Your task to perform on an android device: set the stopwatch Image 0: 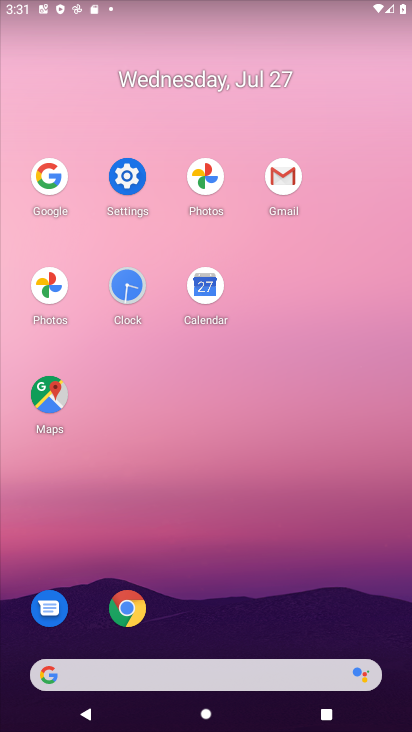
Step 0: click (119, 292)
Your task to perform on an android device: set the stopwatch Image 1: 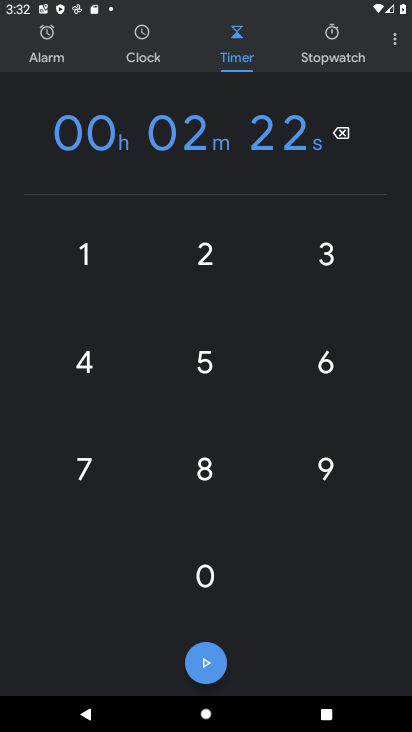
Step 1: click (334, 32)
Your task to perform on an android device: set the stopwatch Image 2: 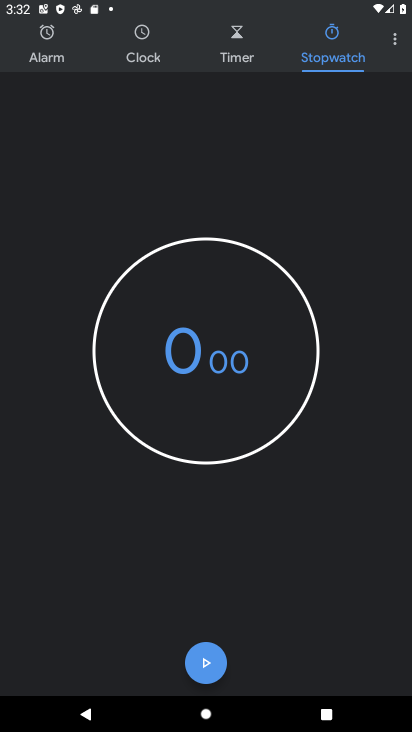
Step 2: click (281, 385)
Your task to perform on an android device: set the stopwatch Image 3: 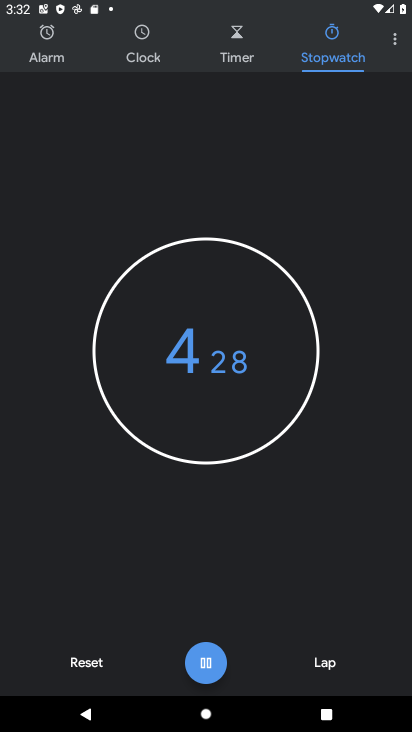
Step 3: task complete